Your task to perform on an android device: Do I have any events today? Image 0: 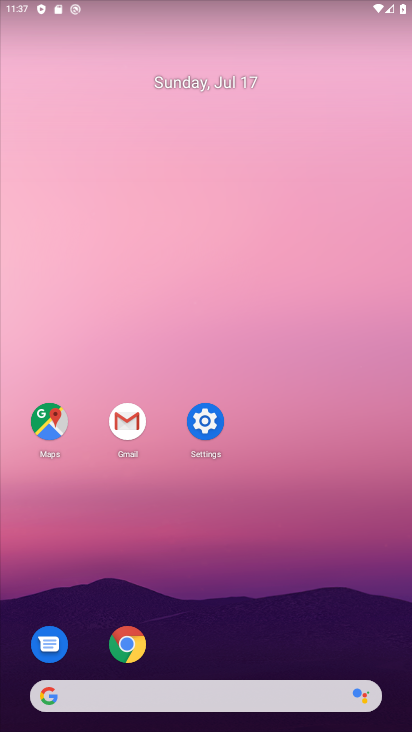
Step 0: drag from (401, 672) to (400, 596)
Your task to perform on an android device: Do I have any events today? Image 1: 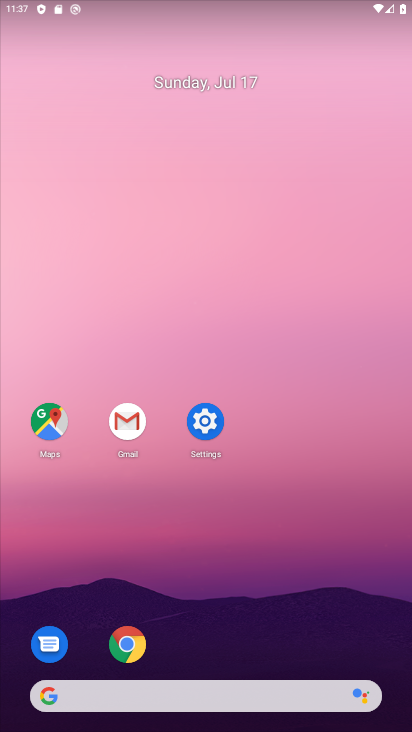
Step 1: drag from (397, 711) to (363, 154)
Your task to perform on an android device: Do I have any events today? Image 2: 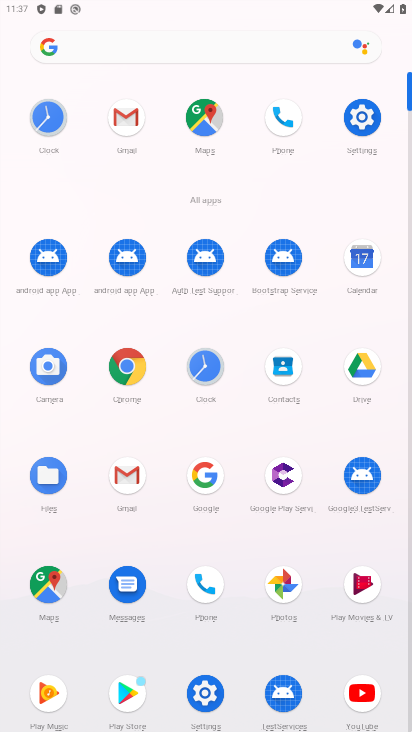
Step 2: click (359, 246)
Your task to perform on an android device: Do I have any events today? Image 3: 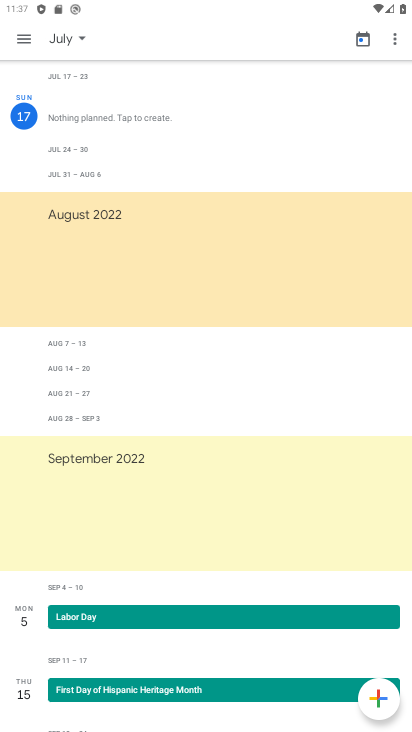
Step 3: click (20, 109)
Your task to perform on an android device: Do I have any events today? Image 4: 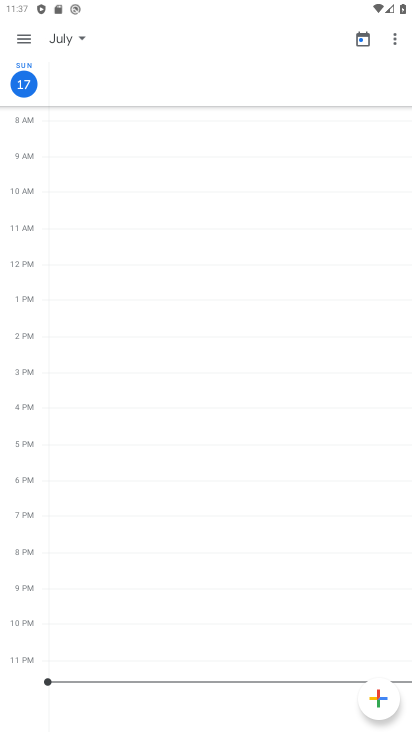
Step 4: click (27, 83)
Your task to perform on an android device: Do I have any events today? Image 5: 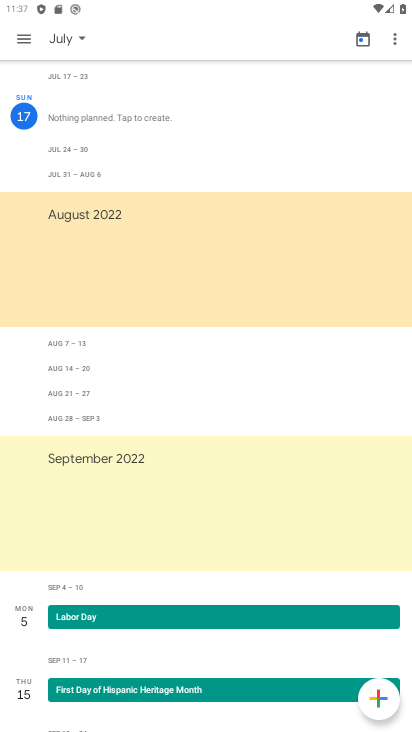
Step 5: task complete